Your task to perform on an android device: Open the calendar app, open the side menu, and click the "Day" option Image 0: 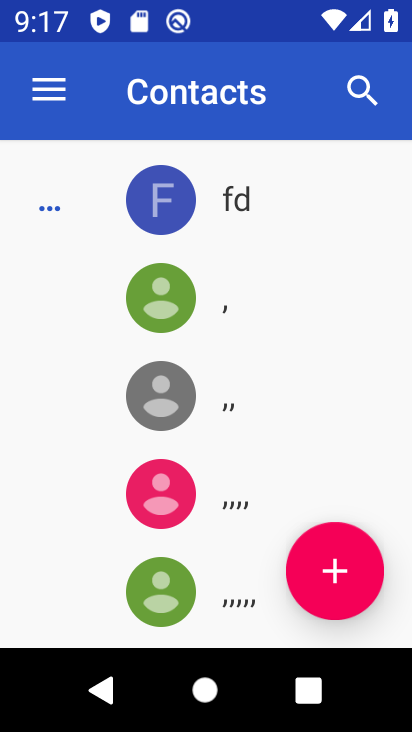
Step 0: press home button
Your task to perform on an android device: Open the calendar app, open the side menu, and click the "Day" option Image 1: 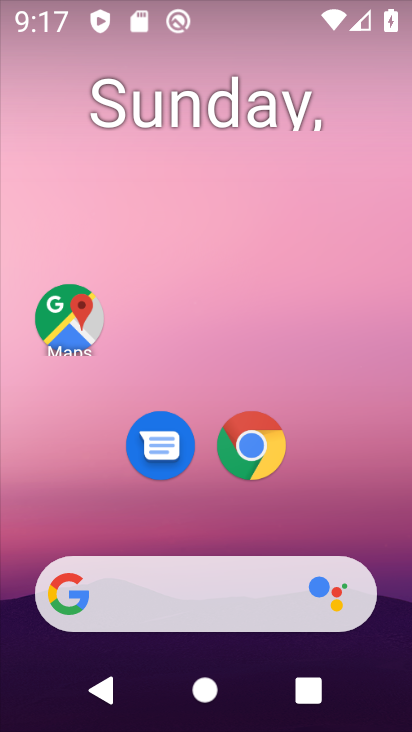
Step 1: drag from (178, 550) to (192, 133)
Your task to perform on an android device: Open the calendar app, open the side menu, and click the "Day" option Image 2: 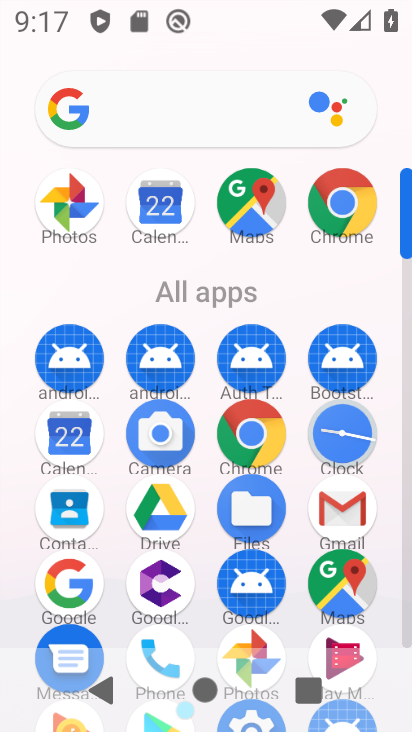
Step 2: click (65, 442)
Your task to perform on an android device: Open the calendar app, open the side menu, and click the "Day" option Image 3: 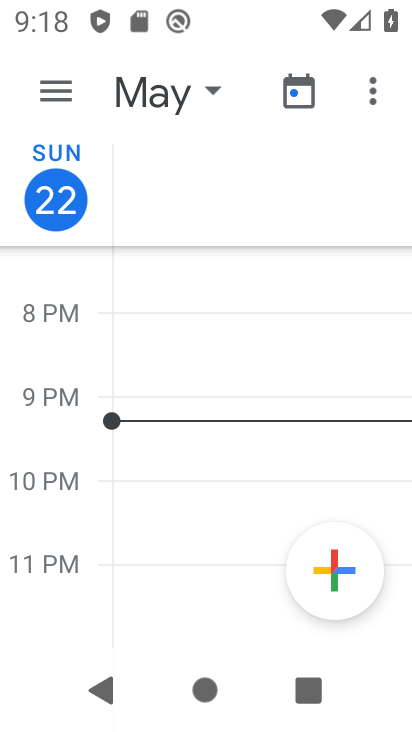
Step 3: click (57, 95)
Your task to perform on an android device: Open the calendar app, open the side menu, and click the "Day" option Image 4: 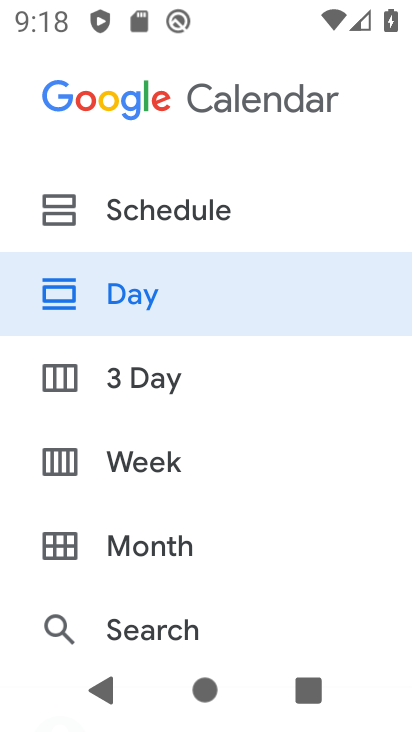
Step 4: click (156, 288)
Your task to perform on an android device: Open the calendar app, open the side menu, and click the "Day" option Image 5: 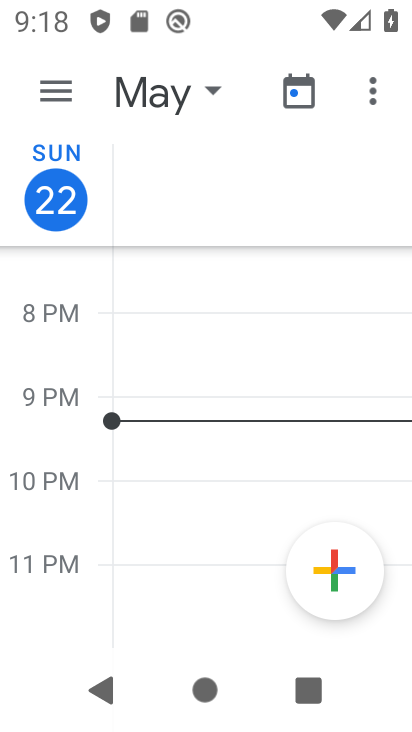
Step 5: task complete